Your task to perform on an android device: find which apps use the phone's location Image 0: 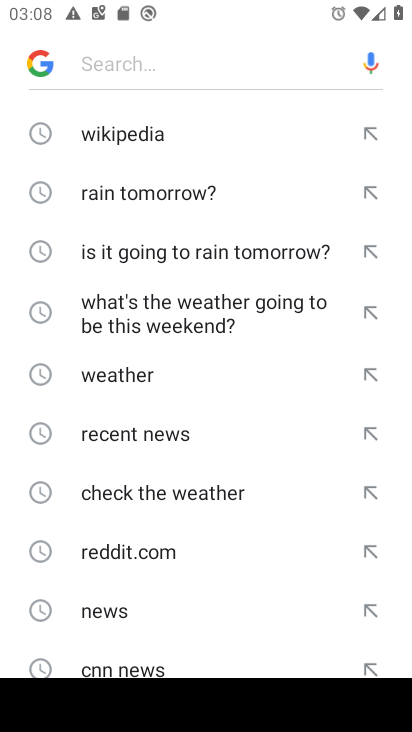
Step 0: press home button
Your task to perform on an android device: find which apps use the phone's location Image 1: 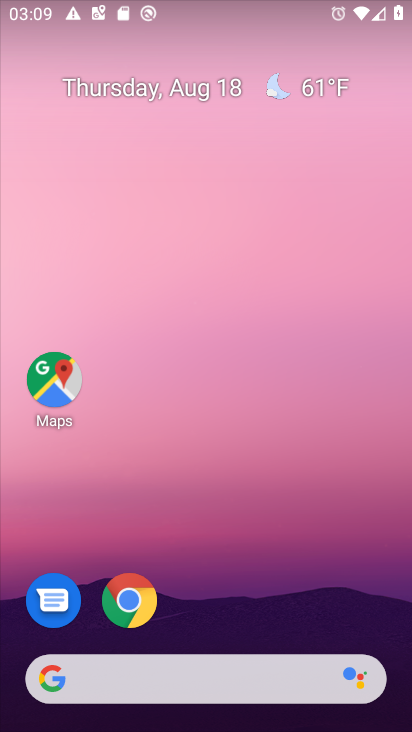
Step 1: drag from (237, 640) to (281, 5)
Your task to perform on an android device: find which apps use the phone's location Image 2: 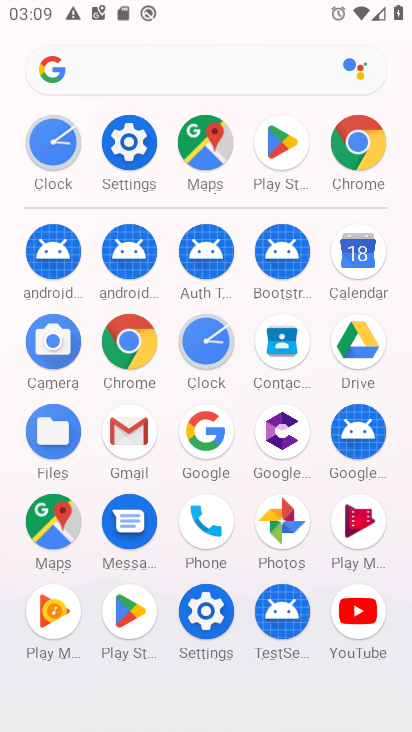
Step 2: click (133, 163)
Your task to perform on an android device: find which apps use the phone's location Image 3: 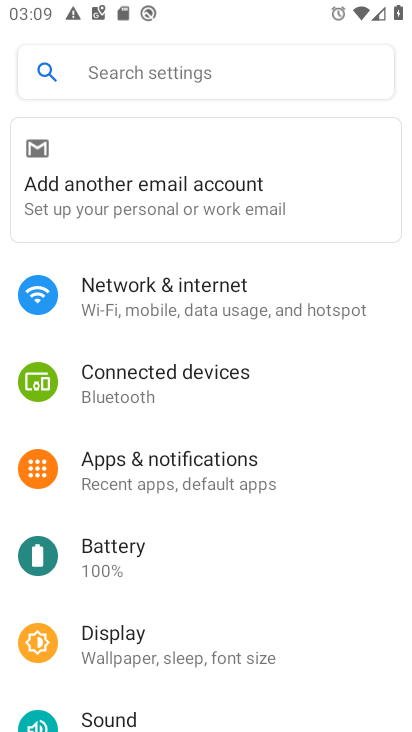
Step 3: drag from (265, 589) to (249, 152)
Your task to perform on an android device: find which apps use the phone's location Image 4: 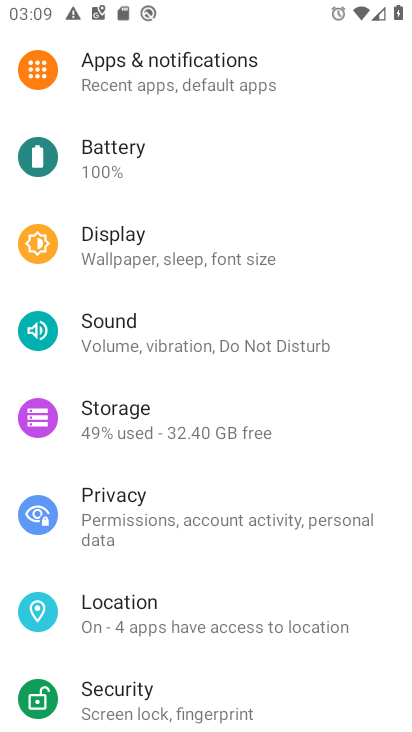
Step 4: click (83, 611)
Your task to perform on an android device: find which apps use the phone's location Image 5: 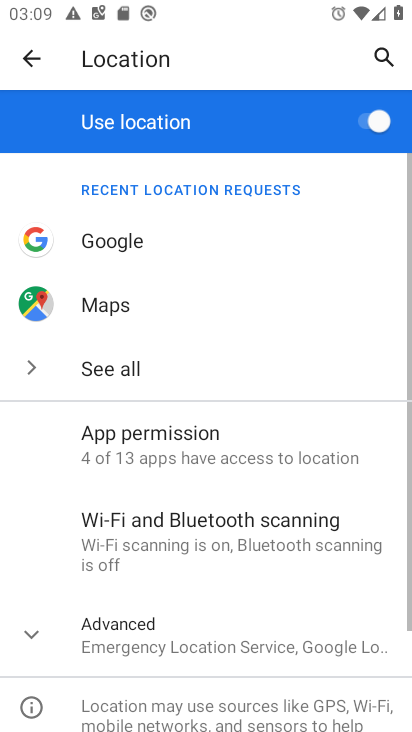
Step 5: click (149, 429)
Your task to perform on an android device: find which apps use the phone's location Image 6: 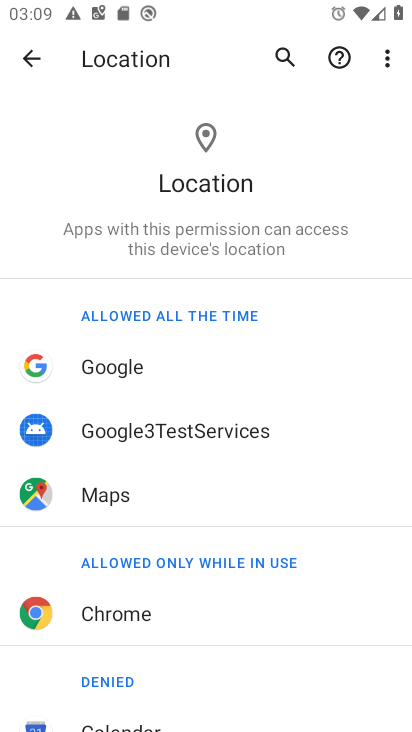
Step 6: task complete